Your task to perform on an android device: Search for seafood restaurants on Google Maps Image 0: 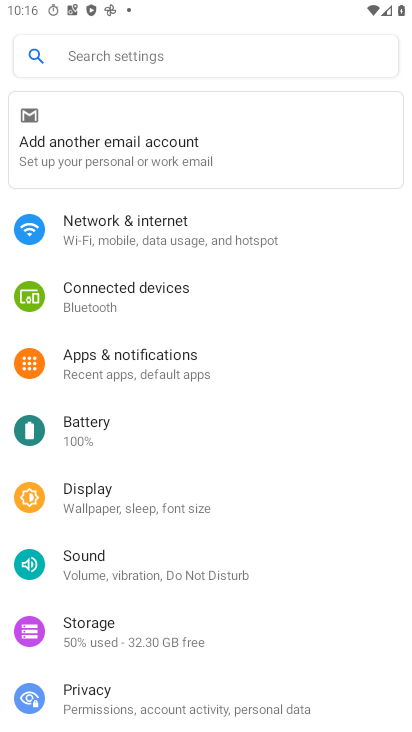
Step 0: press home button
Your task to perform on an android device: Search for seafood restaurants on Google Maps Image 1: 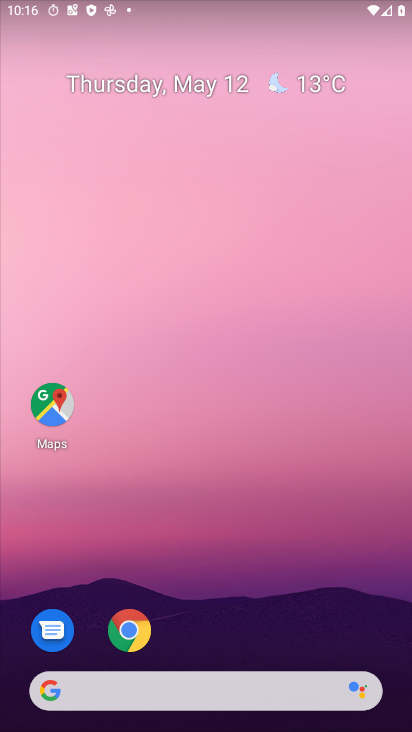
Step 1: click (66, 428)
Your task to perform on an android device: Search for seafood restaurants on Google Maps Image 2: 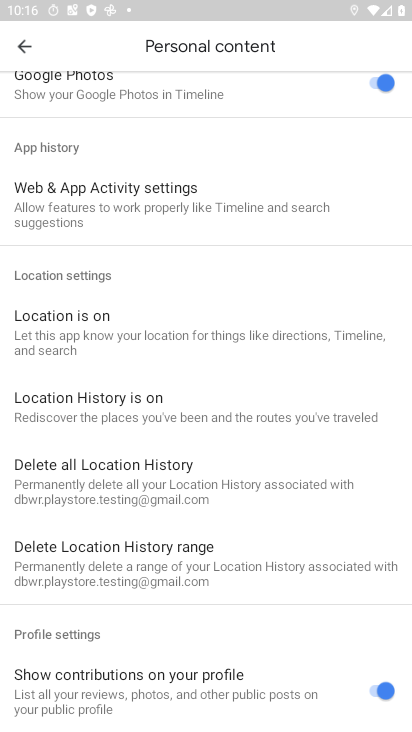
Step 2: click (27, 45)
Your task to perform on an android device: Search for seafood restaurants on Google Maps Image 3: 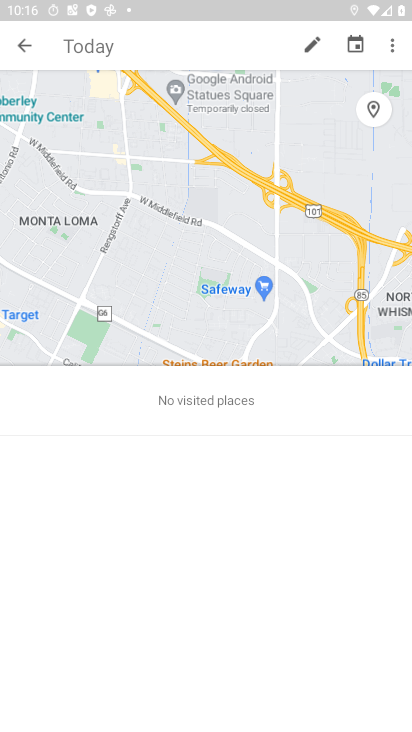
Step 3: click (27, 45)
Your task to perform on an android device: Search for seafood restaurants on Google Maps Image 4: 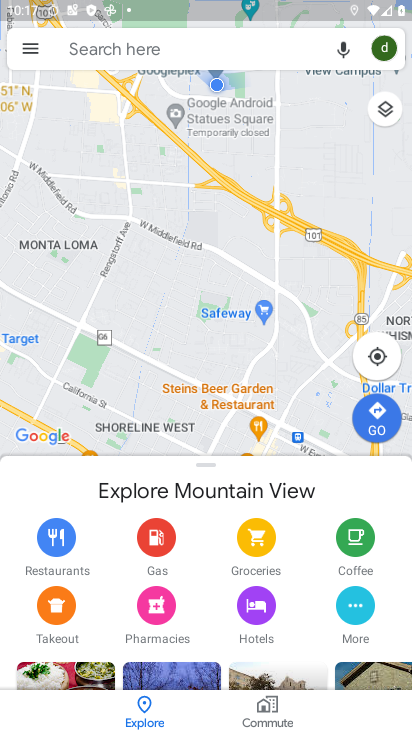
Step 4: click (123, 62)
Your task to perform on an android device: Search for seafood restaurants on Google Maps Image 5: 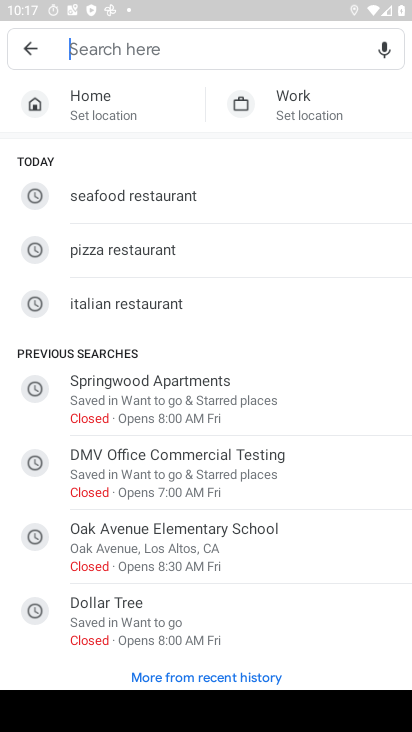
Step 5: click (124, 199)
Your task to perform on an android device: Search for seafood restaurants on Google Maps Image 6: 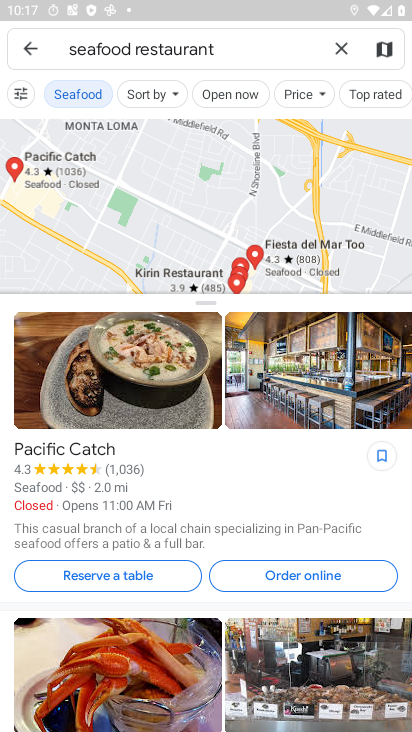
Step 6: task complete